Your task to perform on an android device: Open display settings Image 0: 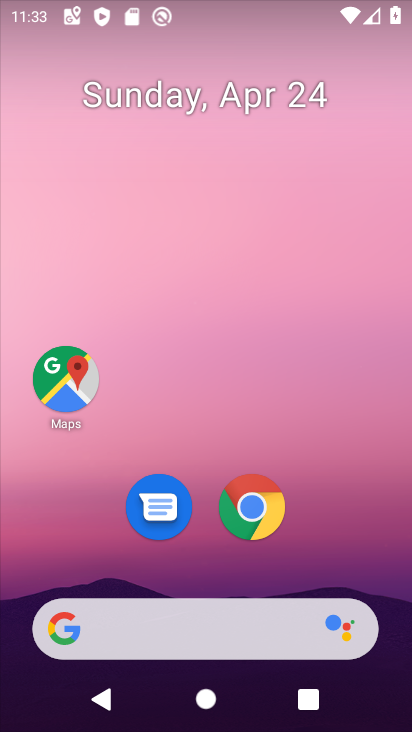
Step 0: drag from (305, 477) to (251, 49)
Your task to perform on an android device: Open display settings Image 1: 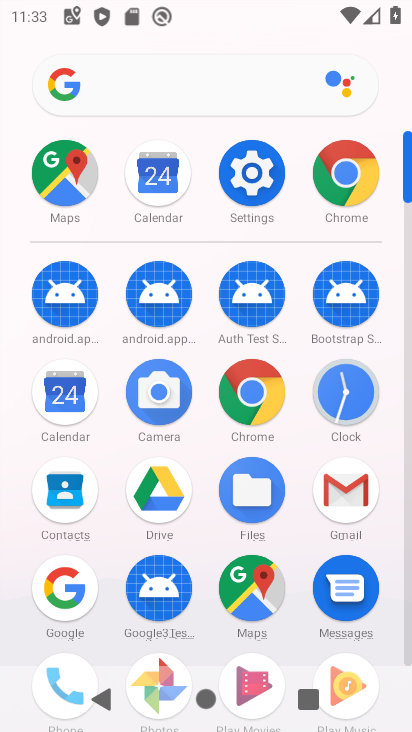
Step 1: drag from (16, 528) to (10, 231)
Your task to perform on an android device: Open display settings Image 2: 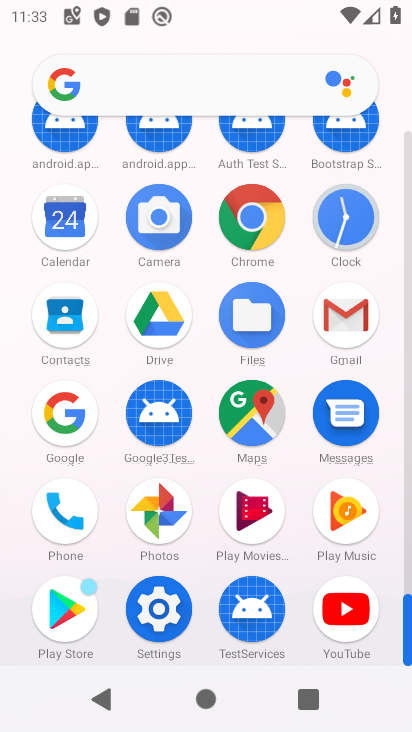
Step 2: drag from (14, 183) to (7, 461)
Your task to perform on an android device: Open display settings Image 3: 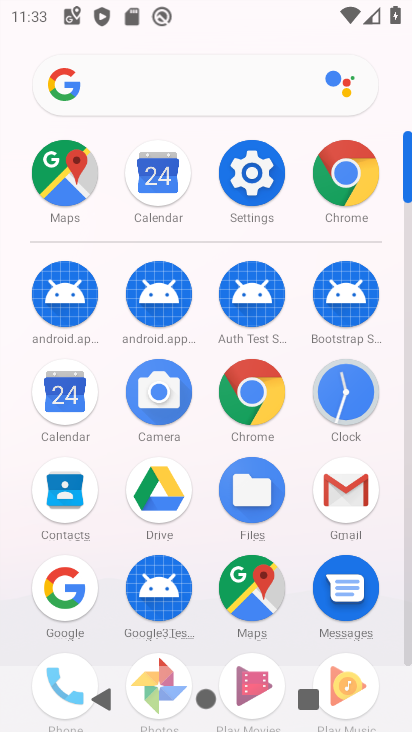
Step 3: drag from (3, 543) to (0, 280)
Your task to perform on an android device: Open display settings Image 4: 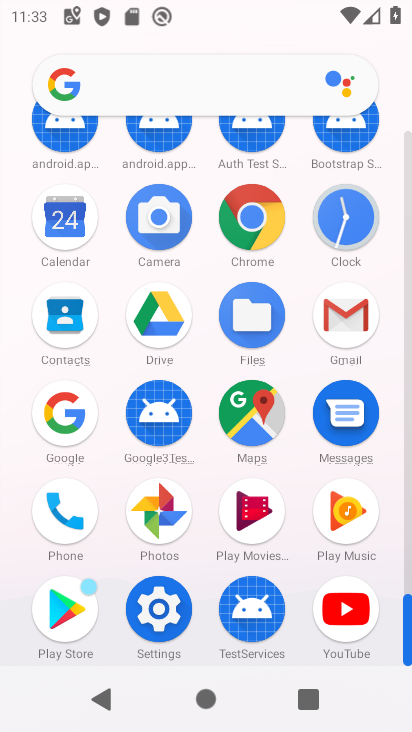
Step 4: click (162, 607)
Your task to perform on an android device: Open display settings Image 5: 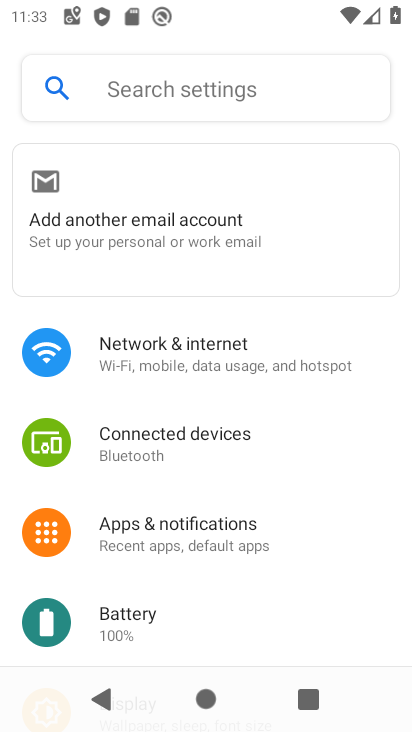
Step 5: drag from (261, 602) to (261, 330)
Your task to perform on an android device: Open display settings Image 6: 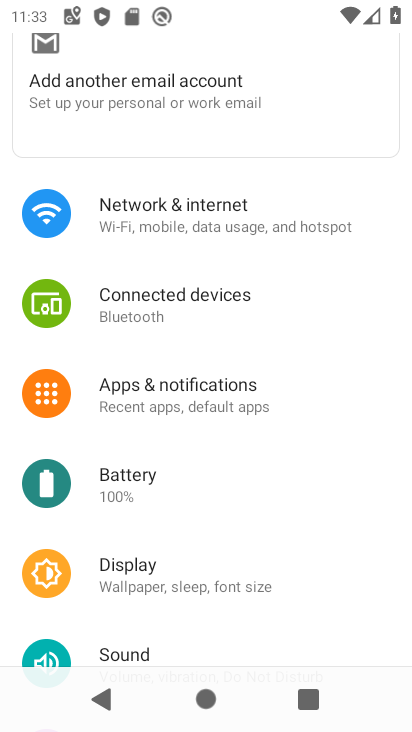
Step 6: click (153, 562)
Your task to perform on an android device: Open display settings Image 7: 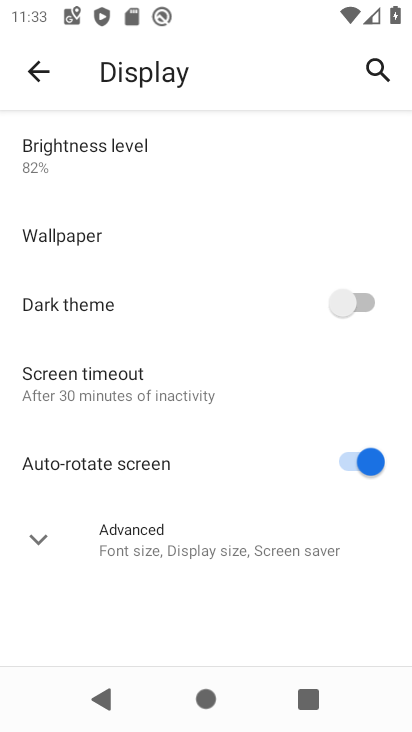
Step 7: click (28, 535)
Your task to perform on an android device: Open display settings Image 8: 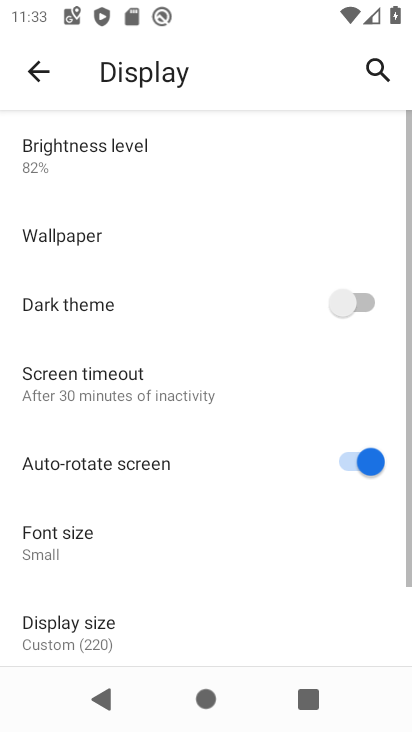
Step 8: task complete